Your task to perform on an android device: turn on wifi Image 0: 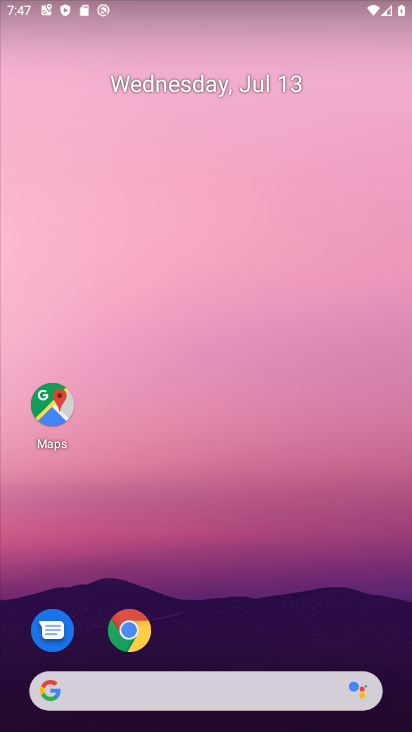
Step 0: drag from (363, 618) to (377, 206)
Your task to perform on an android device: turn on wifi Image 1: 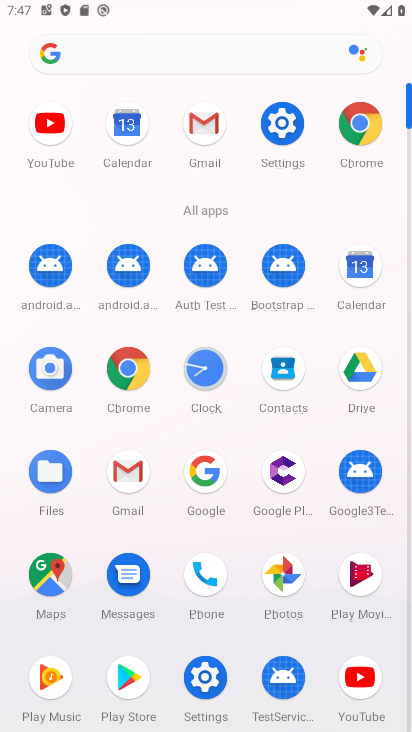
Step 1: click (278, 127)
Your task to perform on an android device: turn on wifi Image 2: 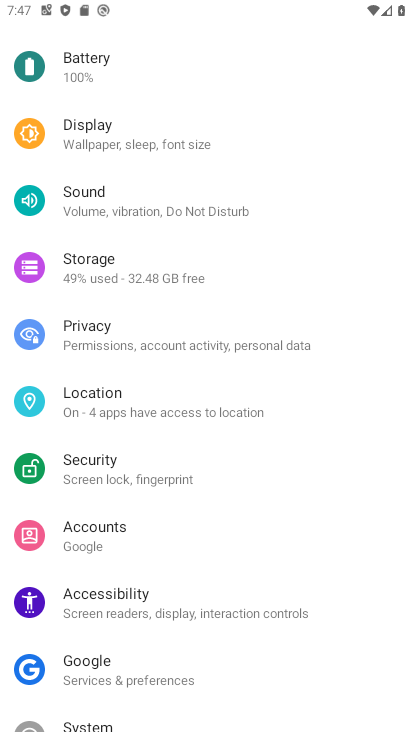
Step 2: drag from (364, 217) to (368, 306)
Your task to perform on an android device: turn on wifi Image 3: 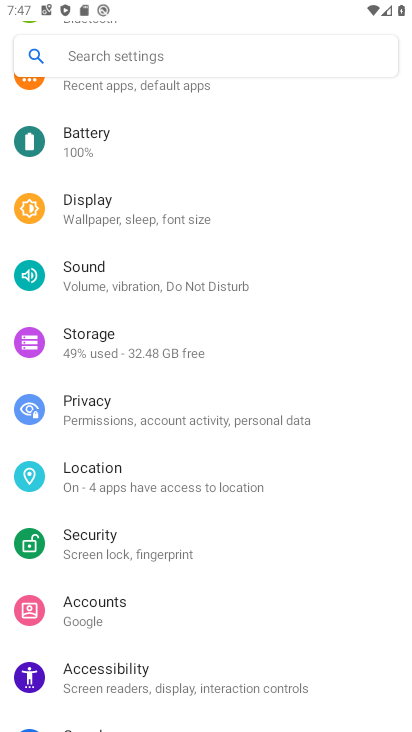
Step 3: drag from (357, 251) to (356, 329)
Your task to perform on an android device: turn on wifi Image 4: 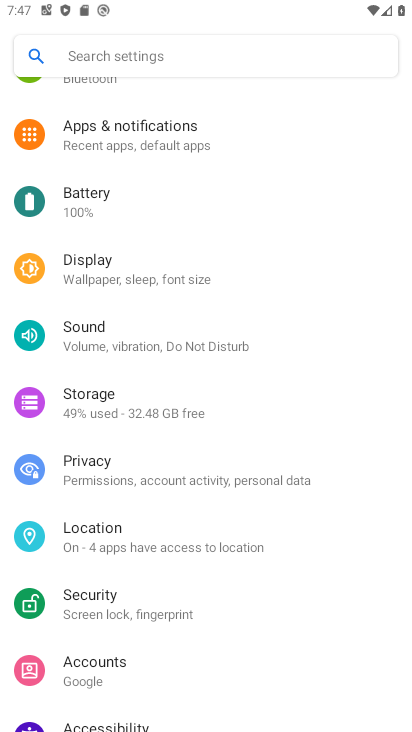
Step 4: drag from (356, 246) to (358, 327)
Your task to perform on an android device: turn on wifi Image 5: 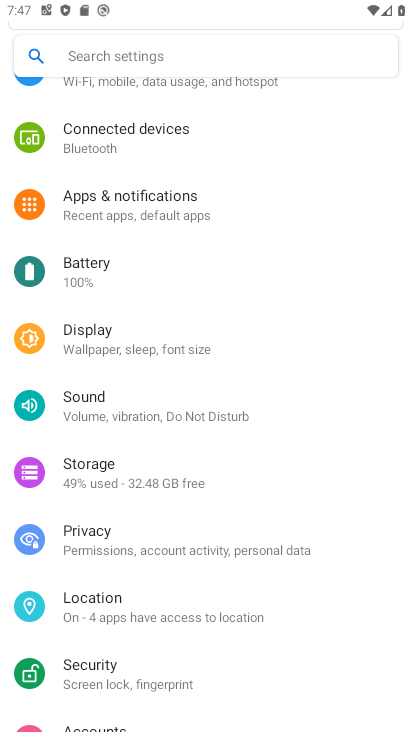
Step 5: drag from (365, 247) to (367, 317)
Your task to perform on an android device: turn on wifi Image 6: 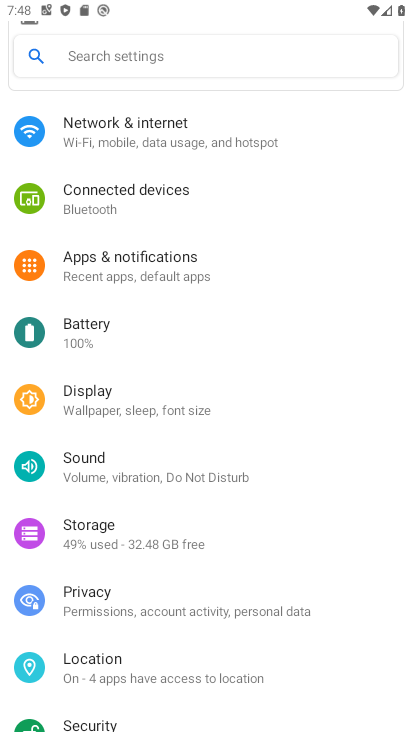
Step 6: drag from (370, 241) to (370, 319)
Your task to perform on an android device: turn on wifi Image 7: 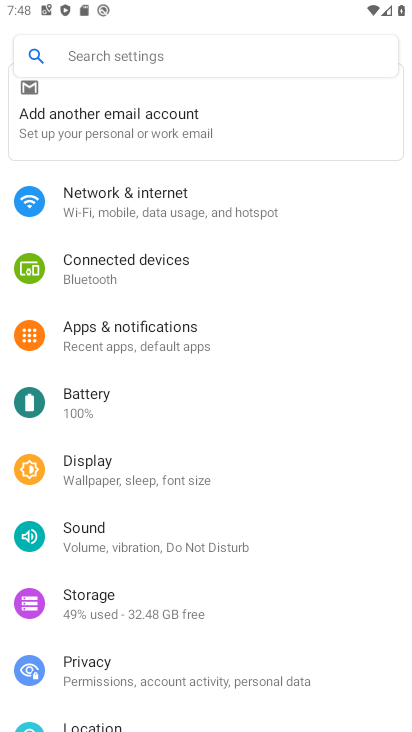
Step 7: drag from (367, 253) to (364, 336)
Your task to perform on an android device: turn on wifi Image 8: 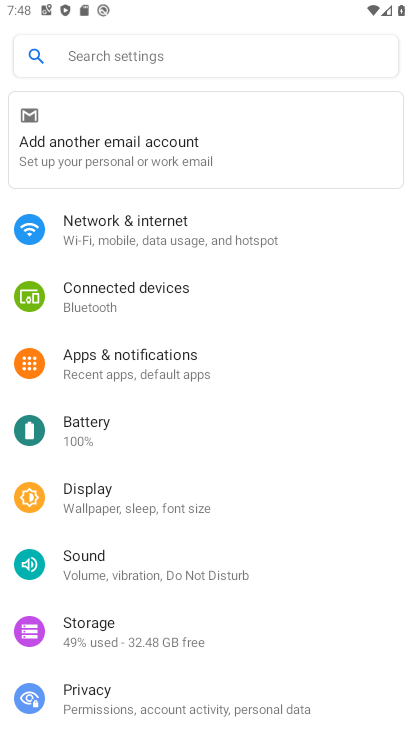
Step 8: click (306, 230)
Your task to perform on an android device: turn on wifi Image 9: 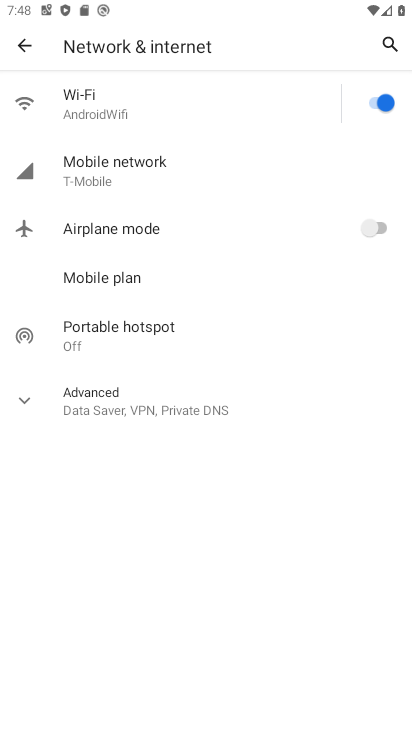
Step 9: task complete